Your task to perform on an android device: move an email to a new category in the gmail app Image 0: 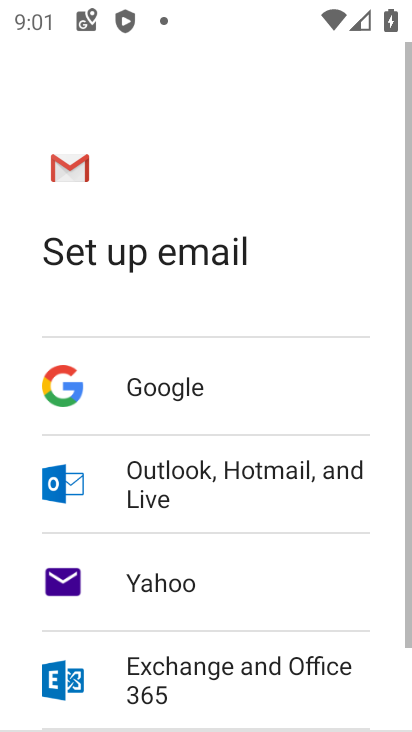
Step 0: press home button
Your task to perform on an android device: move an email to a new category in the gmail app Image 1: 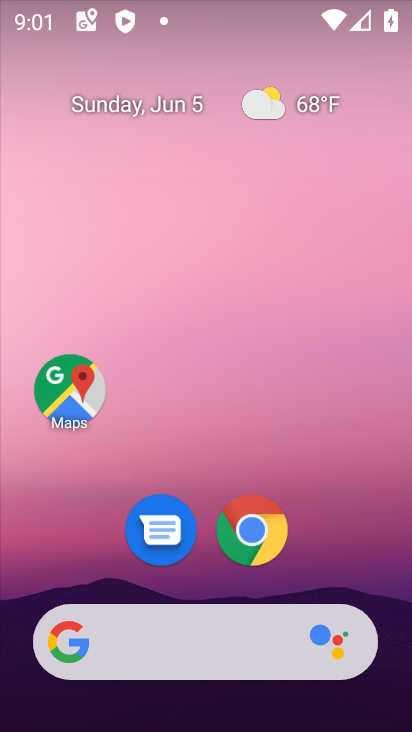
Step 1: drag from (389, 624) to (350, 115)
Your task to perform on an android device: move an email to a new category in the gmail app Image 2: 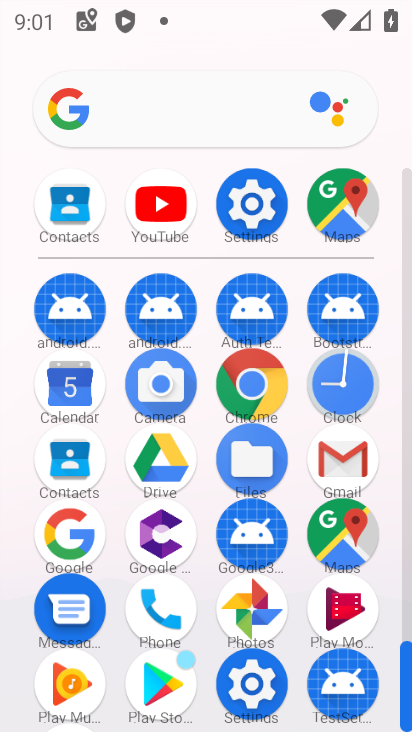
Step 2: click (405, 618)
Your task to perform on an android device: move an email to a new category in the gmail app Image 3: 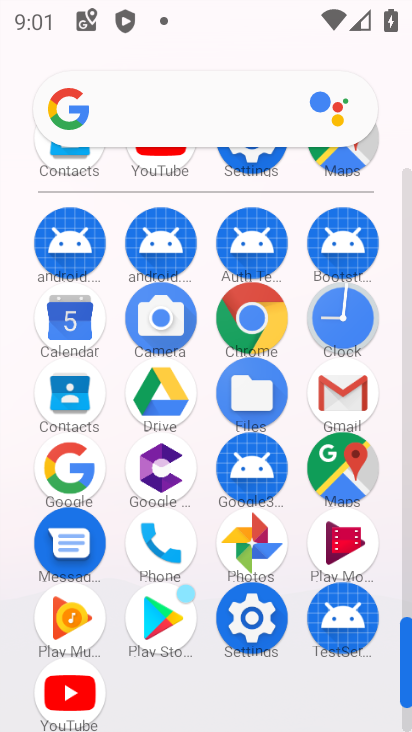
Step 3: click (343, 386)
Your task to perform on an android device: move an email to a new category in the gmail app Image 4: 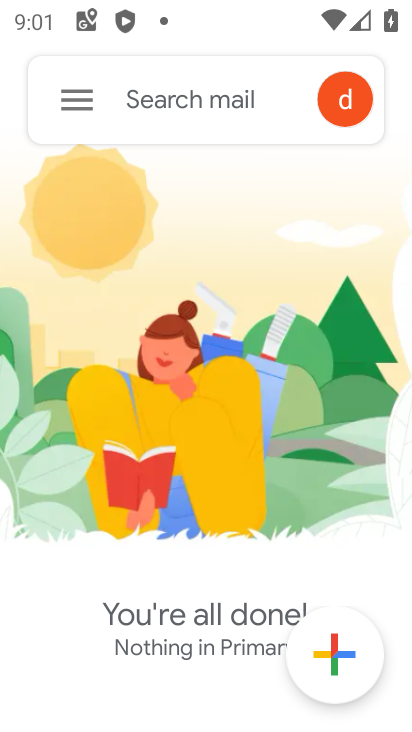
Step 4: click (69, 104)
Your task to perform on an android device: move an email to a new category in the gmail app Image 5: 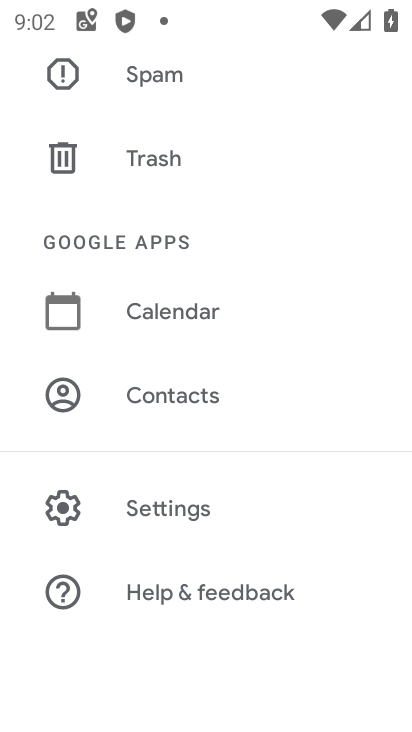
Step 5: click (149, 515)
Your task to perform on an android device: move an email to a new category in the gmail app Image 6: 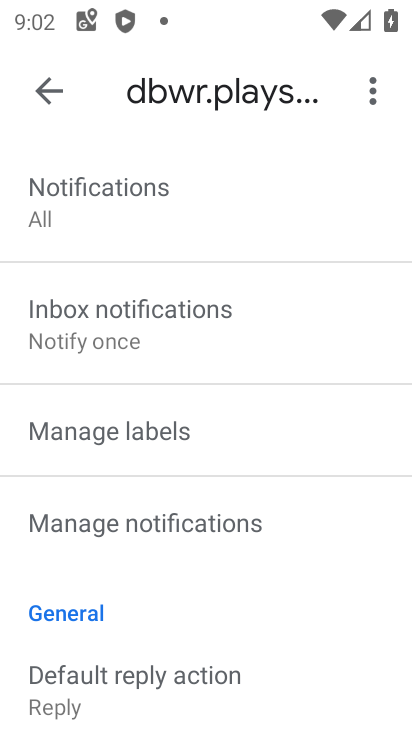
Step 6: press back button
Your task to perform on an android device: move an email to a new category in the gmail app Image 7: 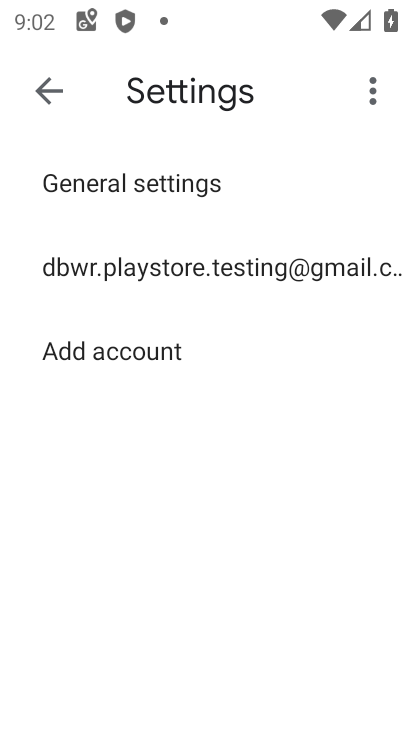
Step 7: press back button
Your task to perform on an android device: move an email to a new category in the gmail app Image 8: 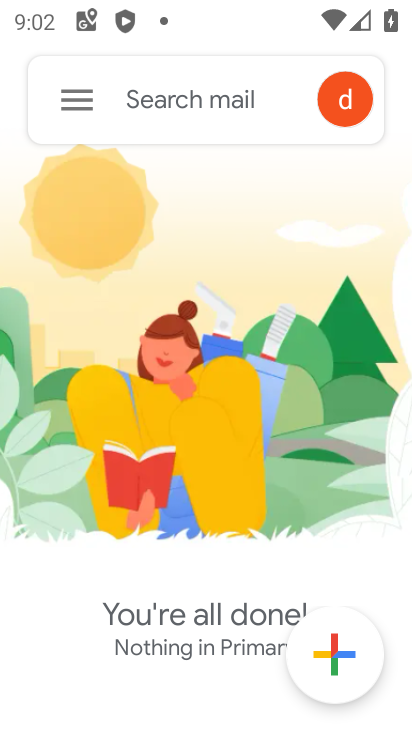
Step 8: click (72, 105)
Your task to perform on an android device: move an email to a new category in the gmail app Image 9: 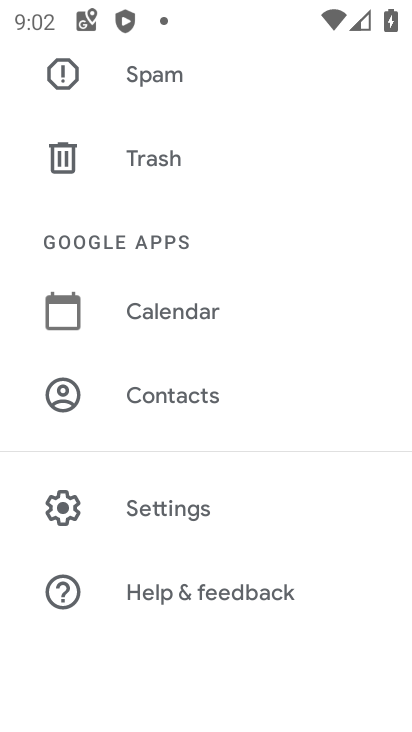
Step 9: drag from (232, 104) to (228, 368)
Your task to perform on an android device: move an email to a new category in the gmail app Image 10: 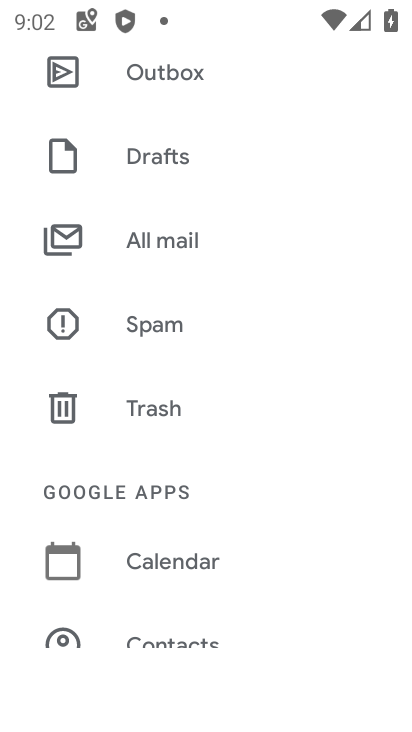
Step 10: click (153, 235)
Your task to perform on an android device: move an email to a new category in the gmail app Image 11: 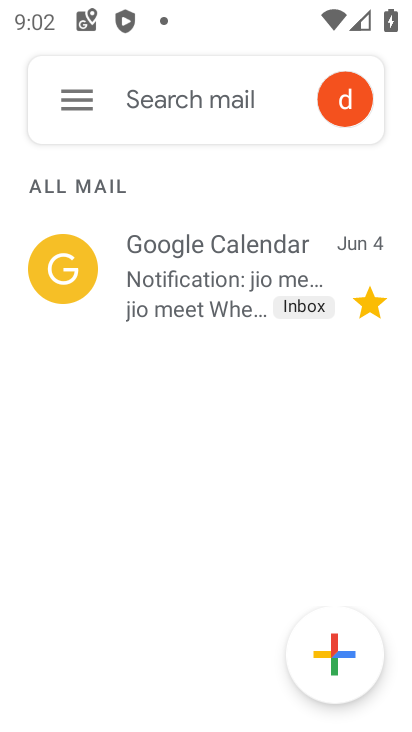
Step 11: click (182, 290)
Your task to perform on an android device: move an email to a new category in the gmail app Image 12: 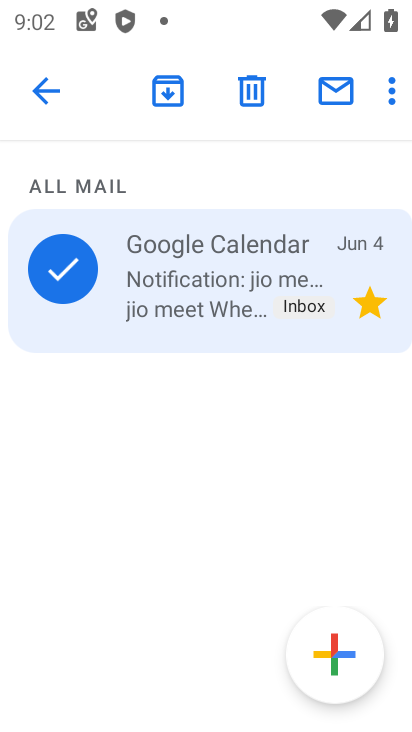
Step 12: click (388, 97)
Your task to perform on an android device: move an email to a new category in the gmail app Image 13: 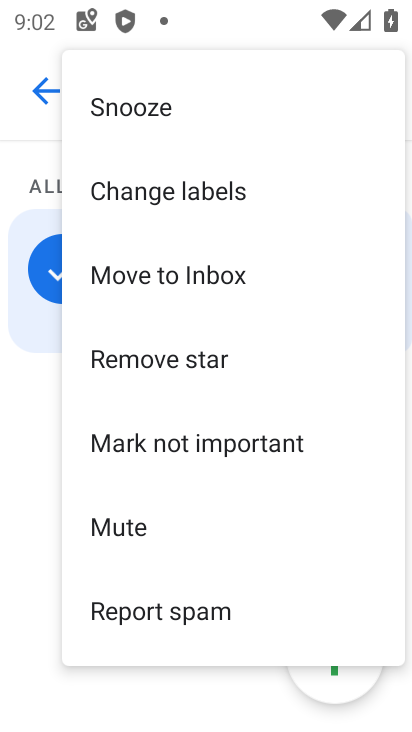
Step 13: click (153, 283)
Your task to perform on an android device: move an email to a new category in the gmail app Image 14: 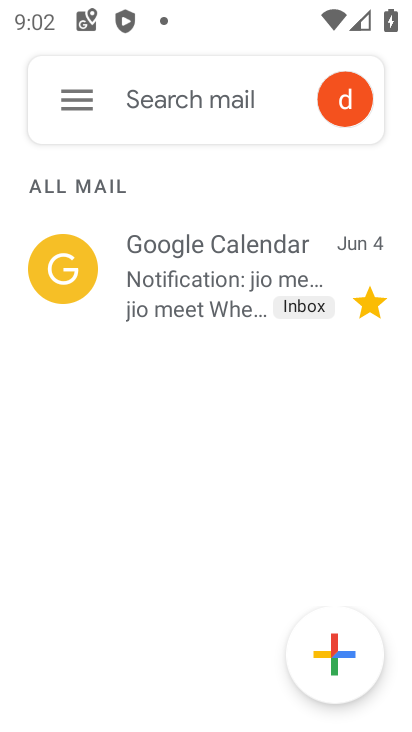
Step 14: task complete